Your task to perform on an android device: toggle javascript in the chrome app Image 0: 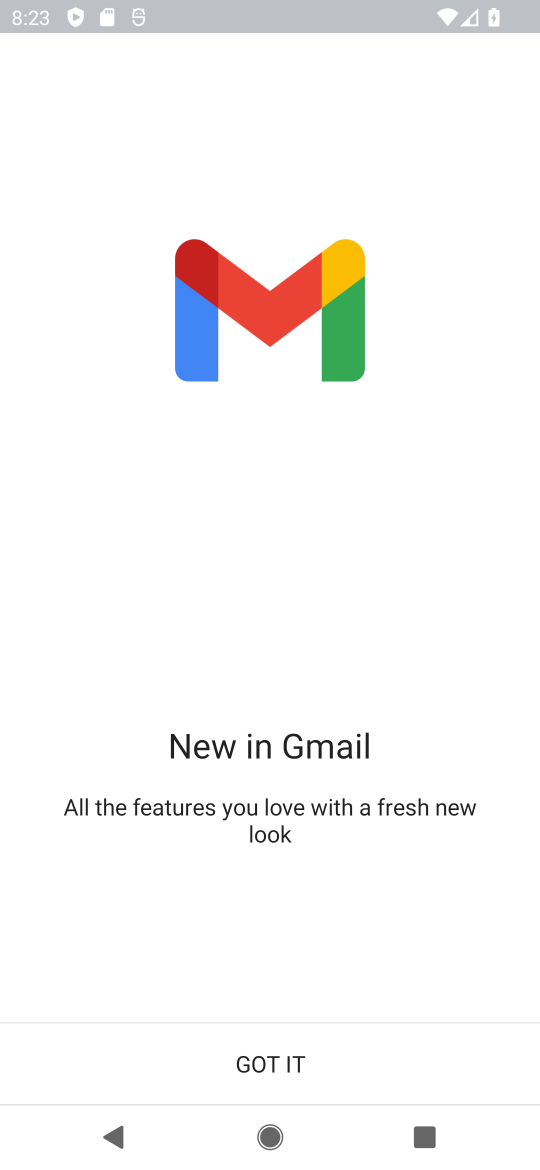
Step 0: press home button
Your task to perform on an android device: toggle javascript in the chrome app Image 1: 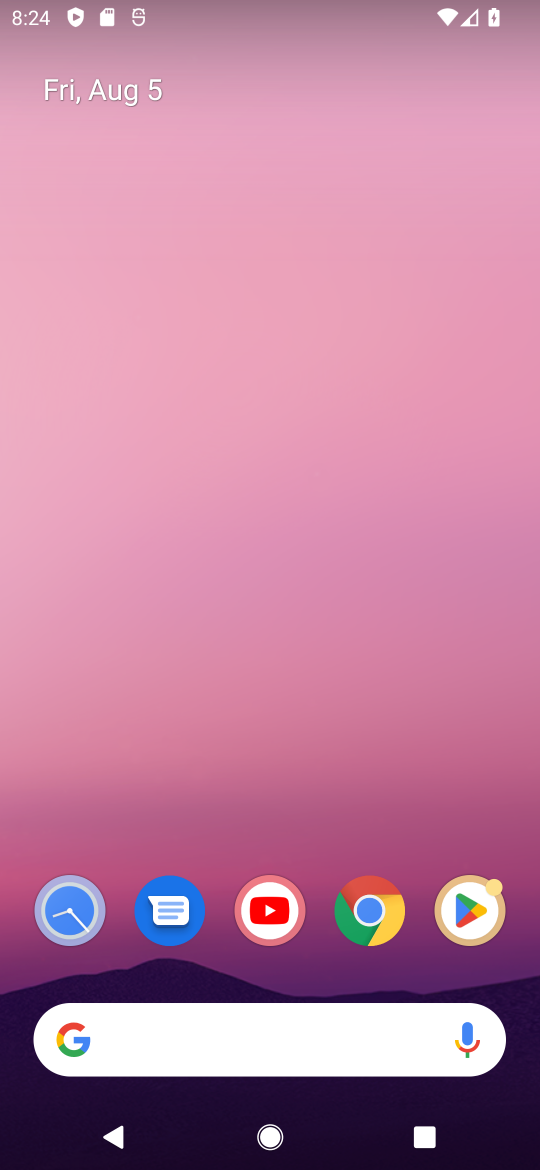
Step 1: click (371, 914)
Your task to perform on an android device: toggle javascript in the chrome app Image 2: 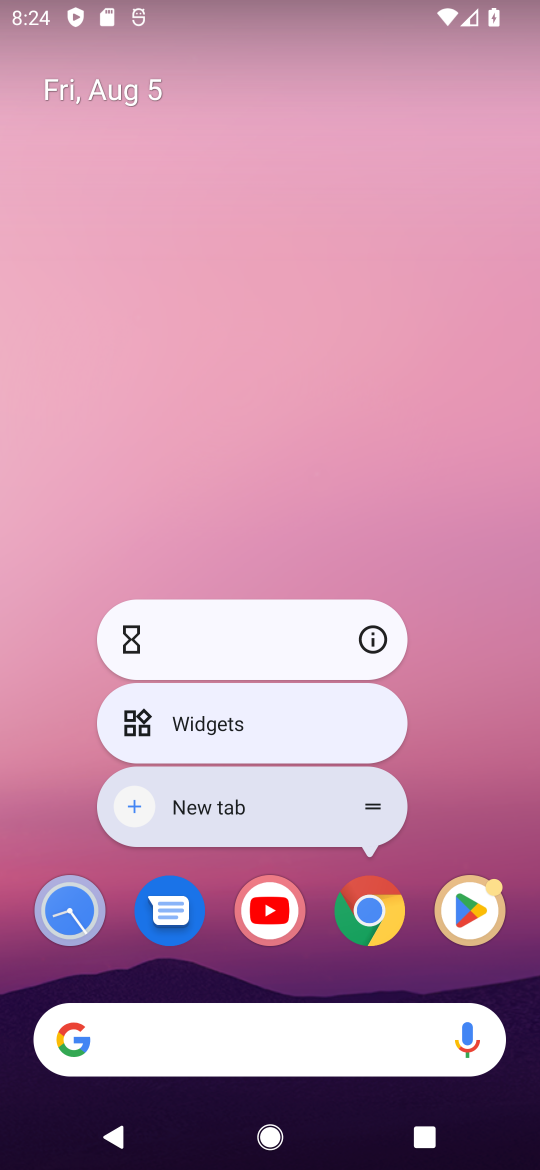
Step 2: click (371, 914)
Your task to perform on an android device: toggle javascript in the chrome app Image 3: 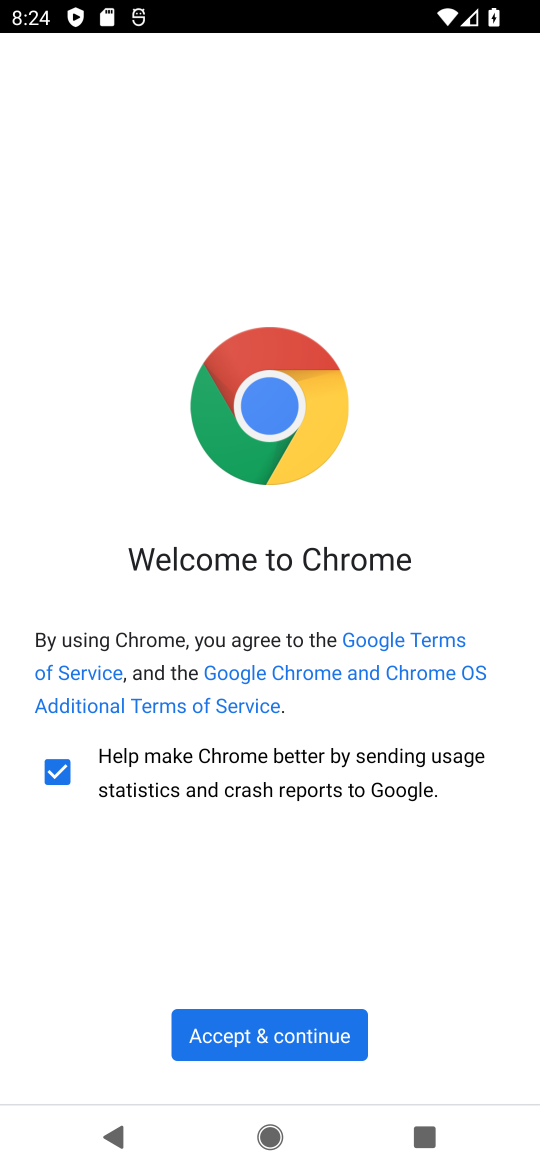
Step 3: click (289, 1024)
Your task to perform on an android device: toggle javascript in the chrome app Image 4: 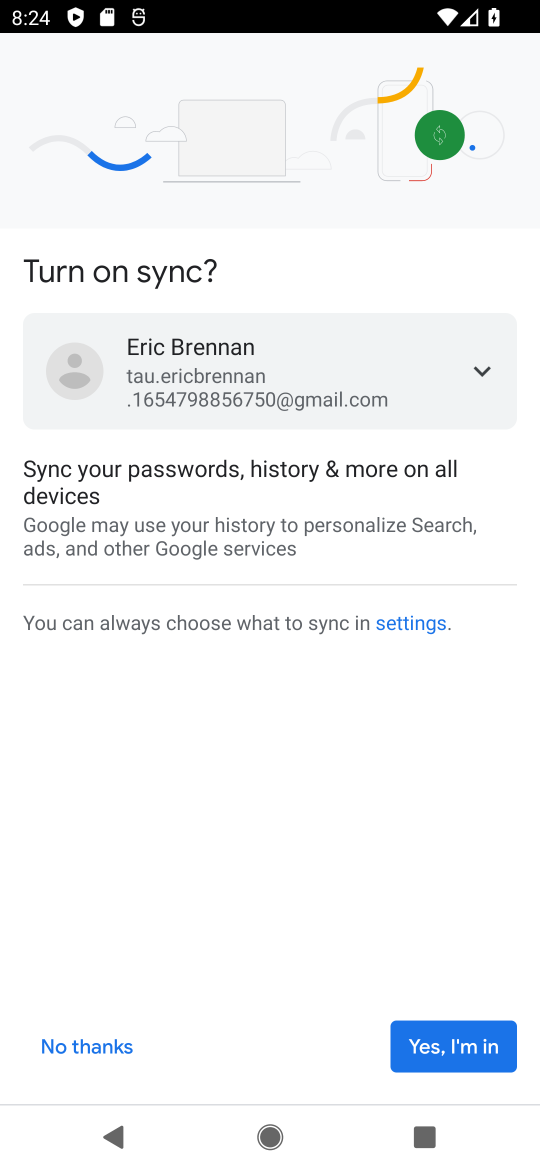
Step 4: click (437, 1046)
Your task to perform on an android device: toggle javascript in the chrome app Image 5: 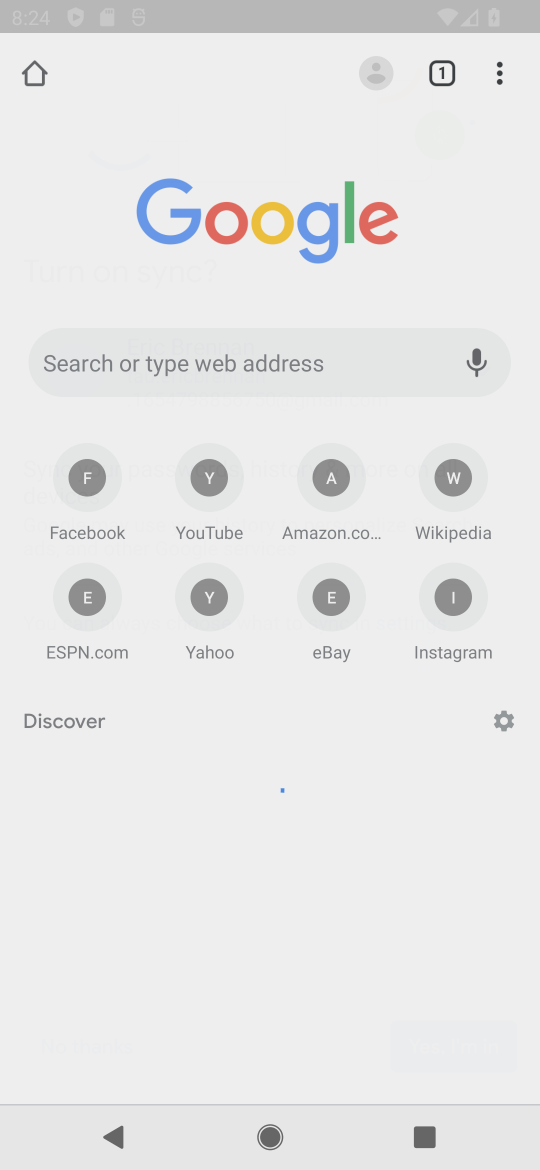
Step 5: click (464, 1043)
Your task to perform on an android device: toggle javascript in the chrome app Image 6: 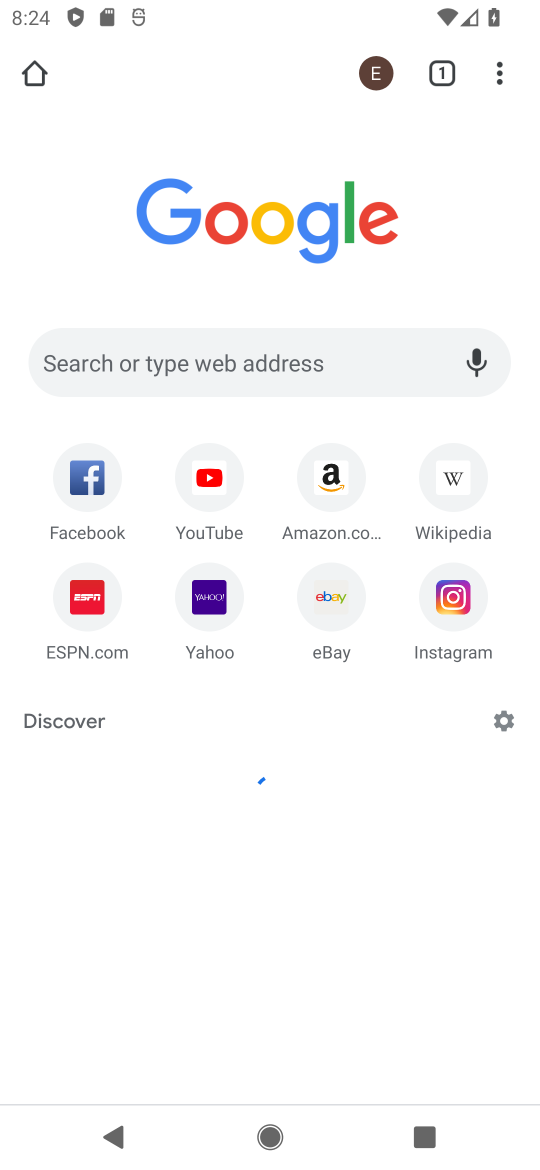
Step 6: drag from (498, 68) to (309, 676)
Your task to perform on an android device: toggle javascript in the chrome app Image 7: 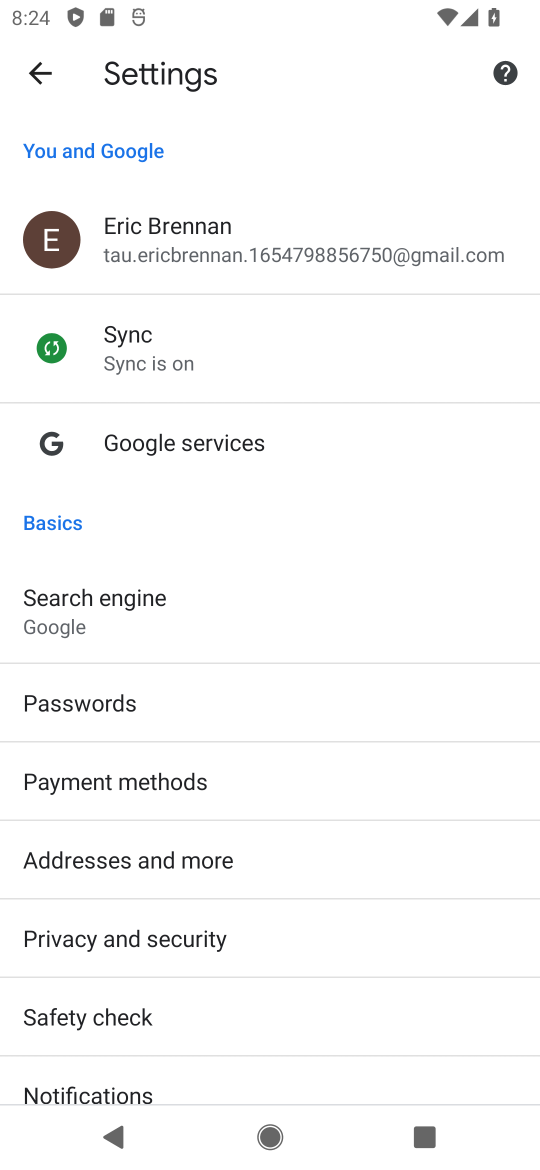
Step 7: drag from (306, 984) to (344, 441)
Your task to perform on an android device: toggle javascript in the chrome app Image 8: 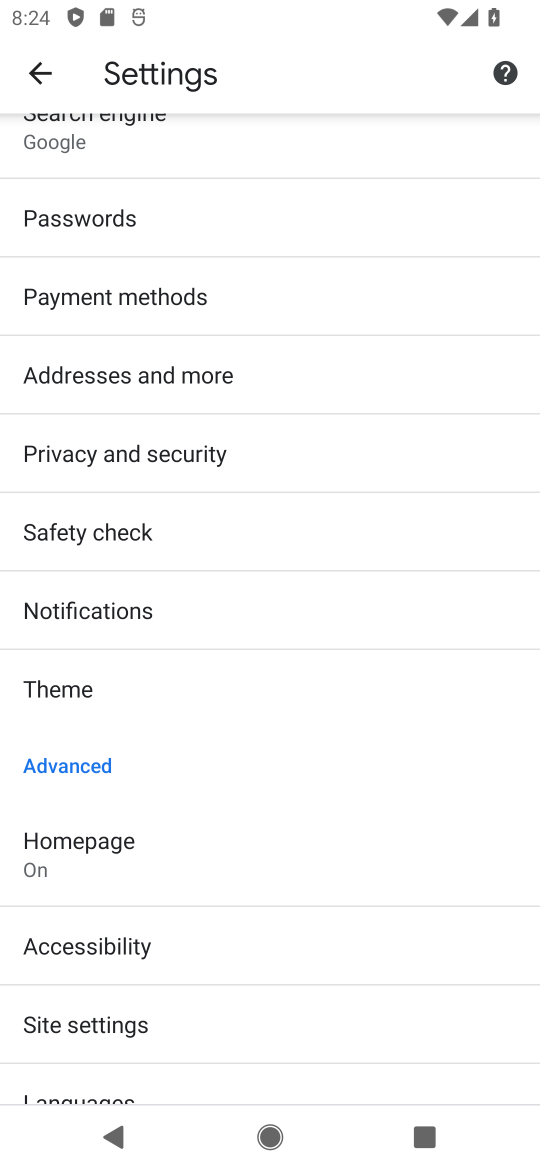
Step 8: click (148, 1025)
Your task to perform on an android device: toggle javascript in the chrome app Image 9: 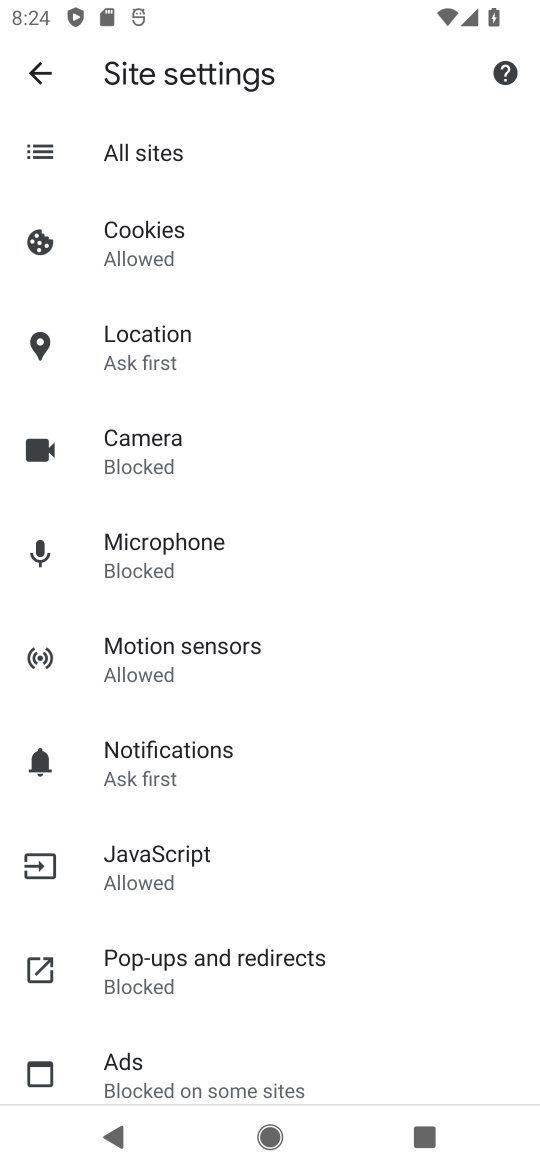
Step 9: click (186, 862)
Your task to perform on an android device: toggle javascript in the chrome app Image 10: 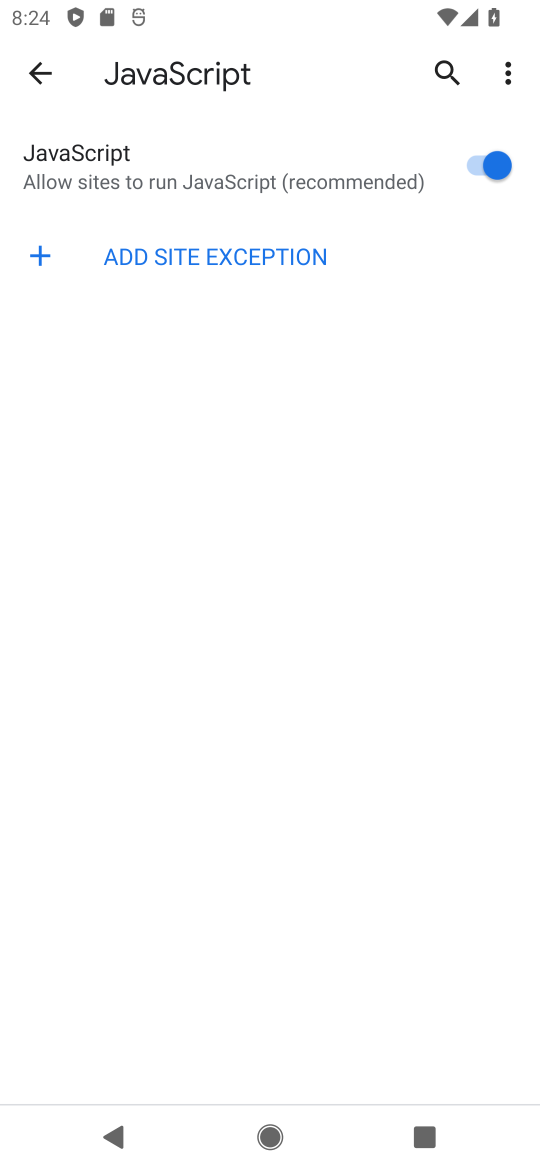
Step 10: click (483, 163)
Your task to perform on an android device: toggle javascript in the chrome app Image 11: 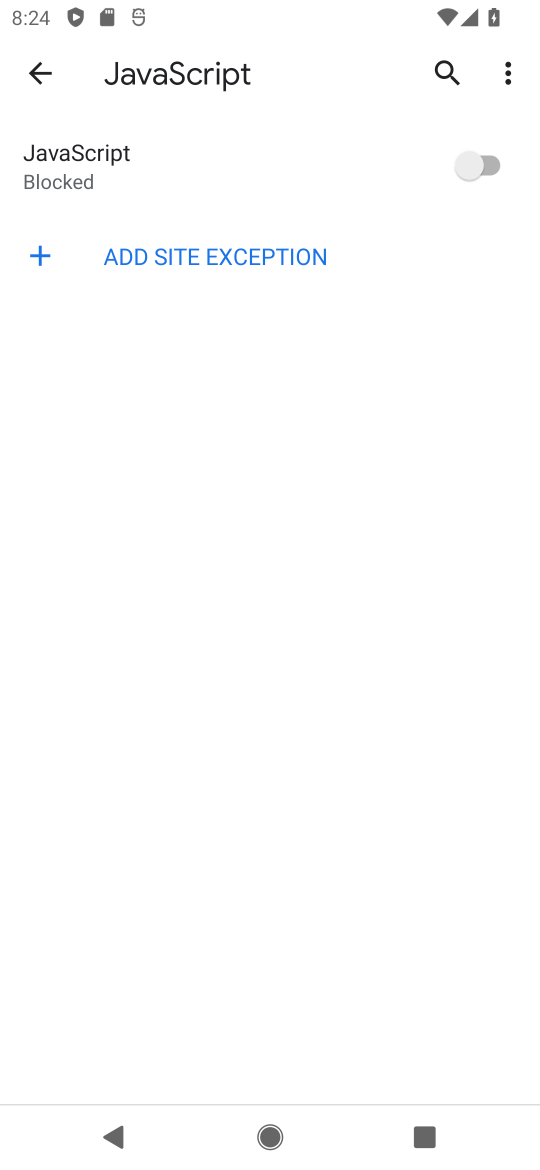
Step 11: task complete